Your task to perform on an android device: Open the map Image 0: 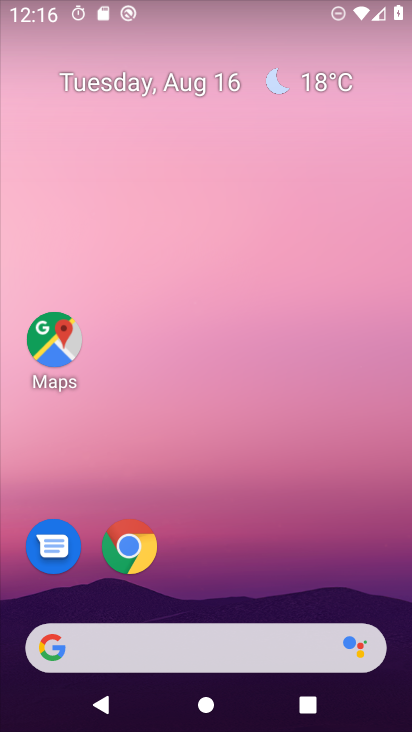
Step 0: drag from (216, 550) to (216, 47)
Your task to perform on an android device: Open the map Image 1: 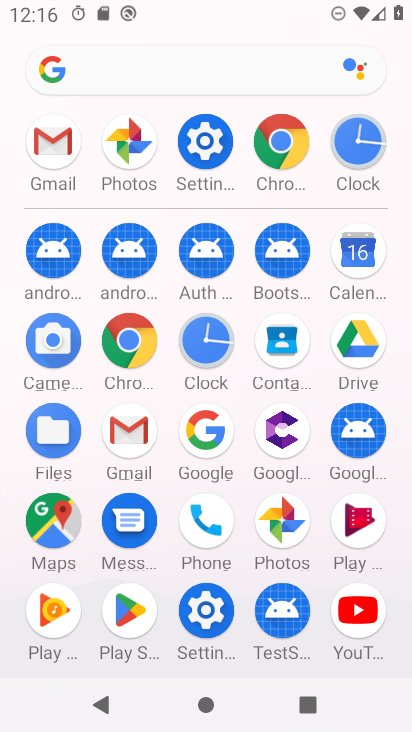
Step 1: click (48, 520)
Your task to perform on an android device: Open the map Image 2: 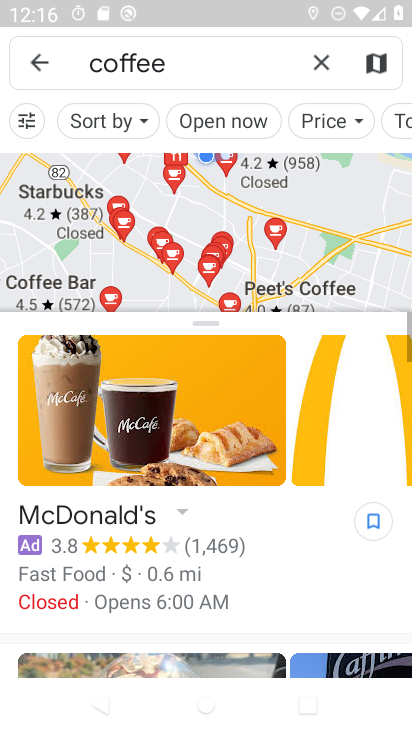
Step 2: task complete